Your task to perform on an android device: Do I have any events today? Image 0: 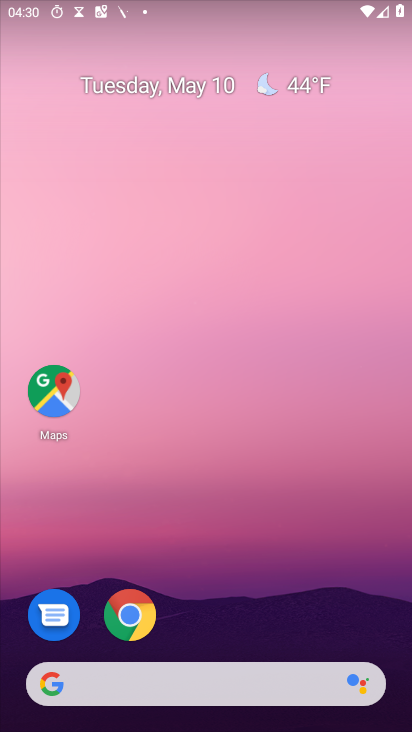
Step 0: drag from (301, 654) to (275, 61)
Your task to perform on an android device: Do I have any events today? Image 1: 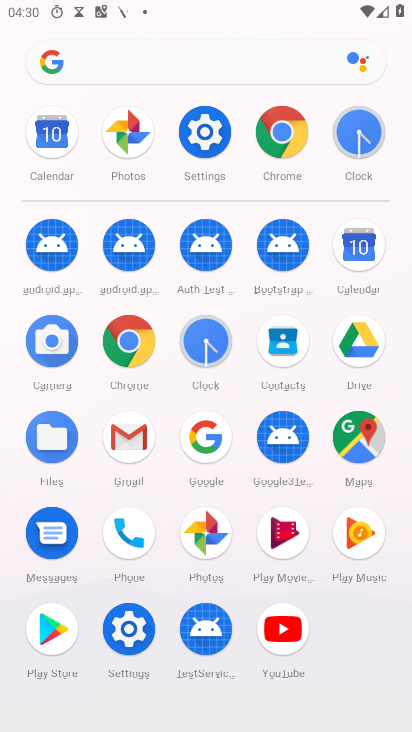
Step 1: click (138, 456)
Your task to perform on an android device: Do I have any events today? Image 2: 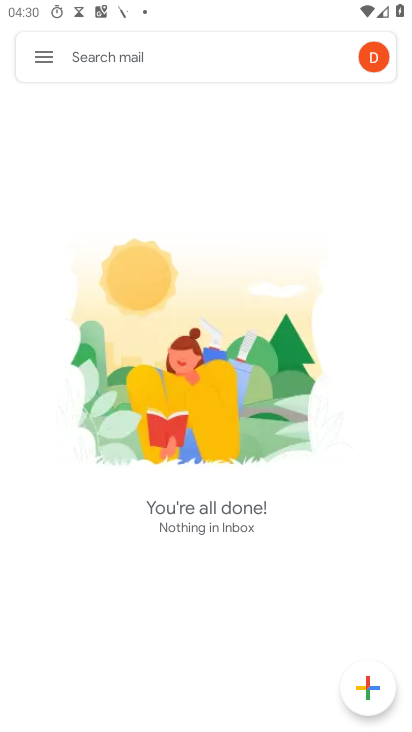
Step 2: press home button
Your task to perform on an android device: Do I have any events today? Image 3: 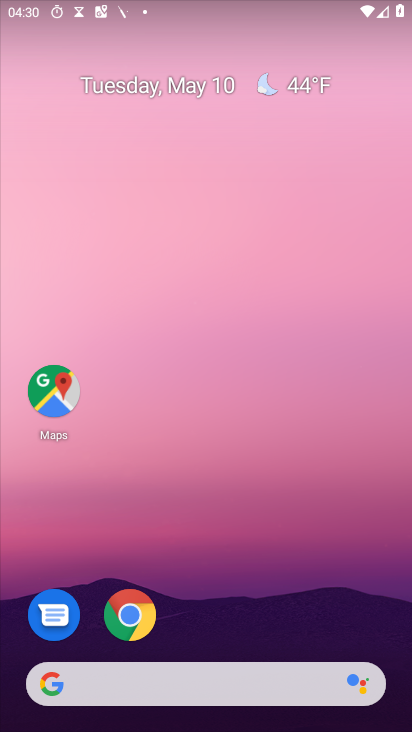
Step 3: drag from (180, 564) to (207, 108)
Your task to perform on an android device: Do I have any events today? Image 4: 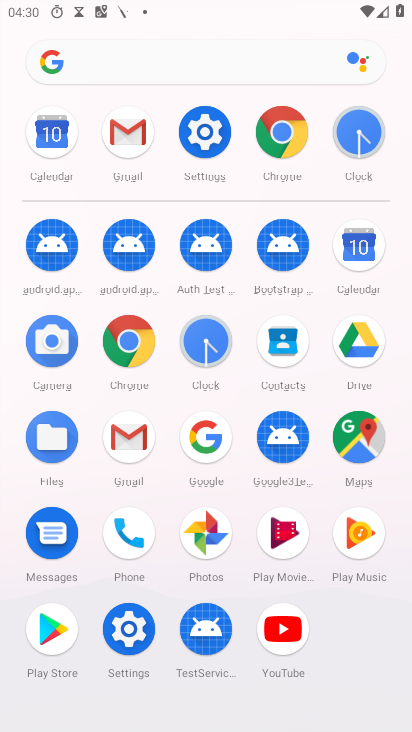
Step 4: click (374, 248)
Your task to perform on an android device: Do I have any events today? Image 5: 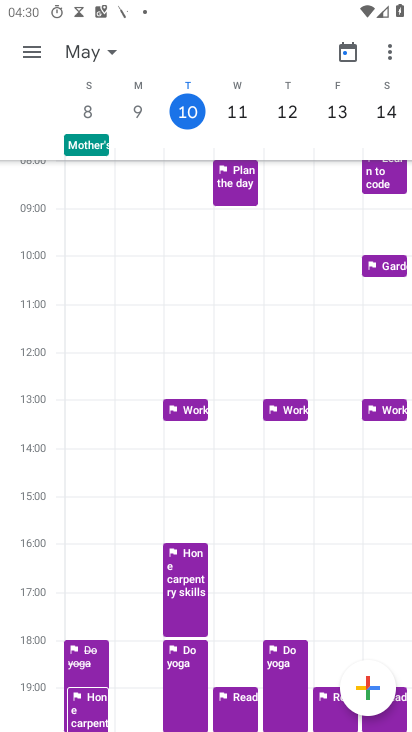
Step 5: click (117, 48)
Your task to perform on an android device: Do I have any events today? Image 6: 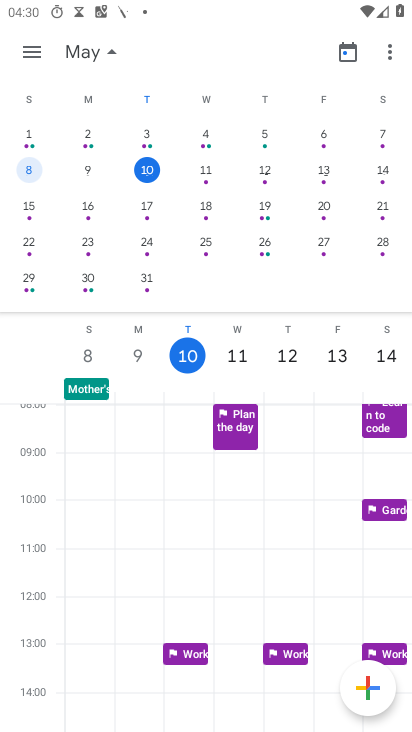
Step 6: click (149, 162)
Your task to perform on an android device: Do I have any events today? Image 7: 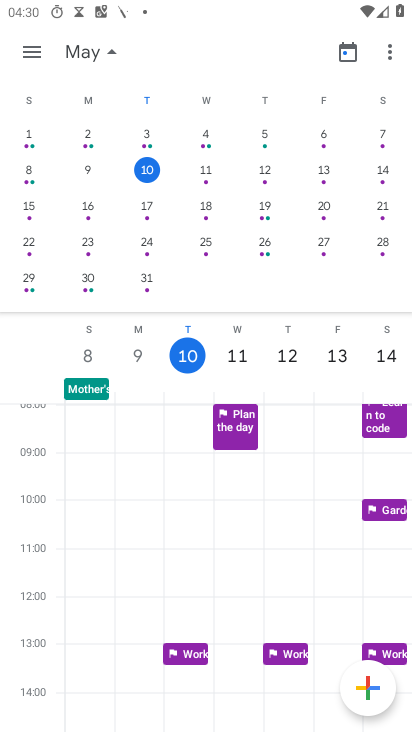
Step 7: task complete